Your task to perform on an android device: Open Android settings Image 0: 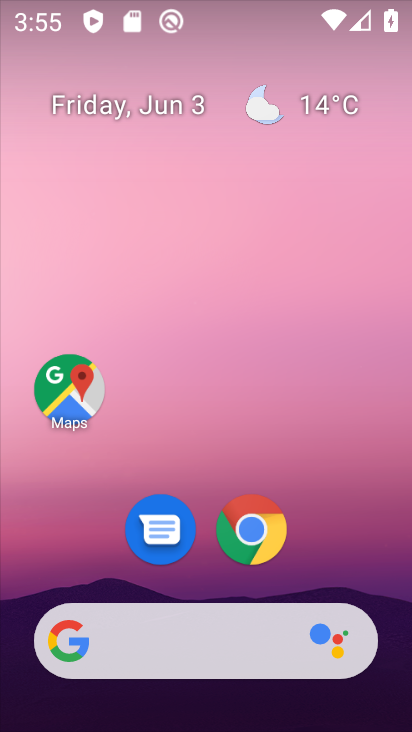
Step 0: press home button
Your task to perform on an android device: Open Android settings Image 1: 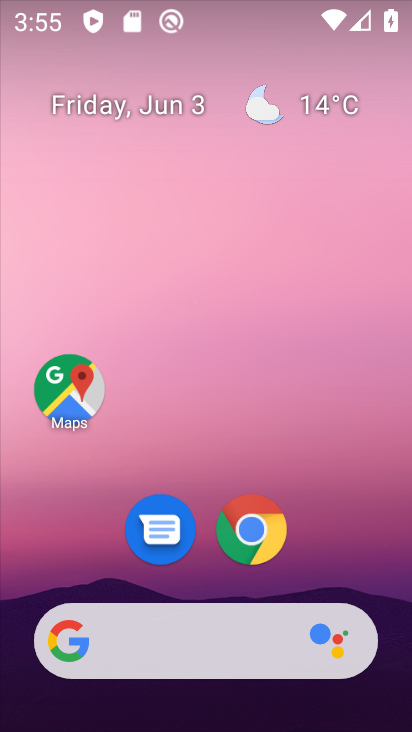
Step 1: click (205, 582)
Your task to perform on an android device: Open Android settings Image 2: 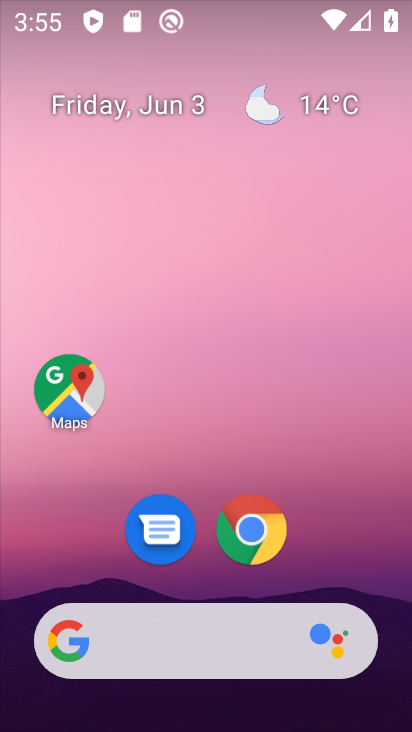
Step 2: click (265, 82)
Your task to perform on an android device: Open Android settings Image 3: 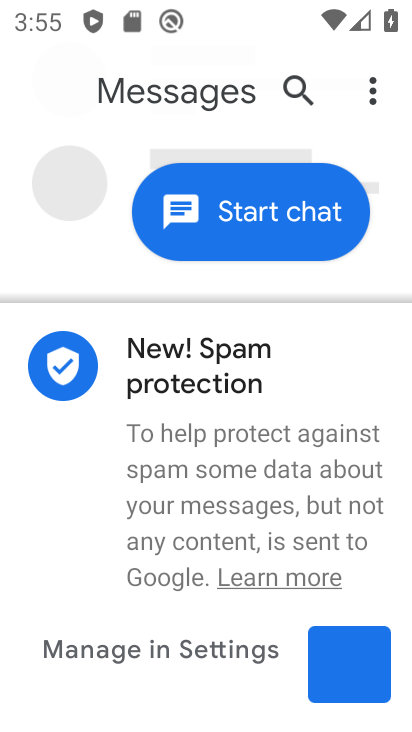
Step 3: press home button
Your task to perform on an android device: Open Android settings Image 4: 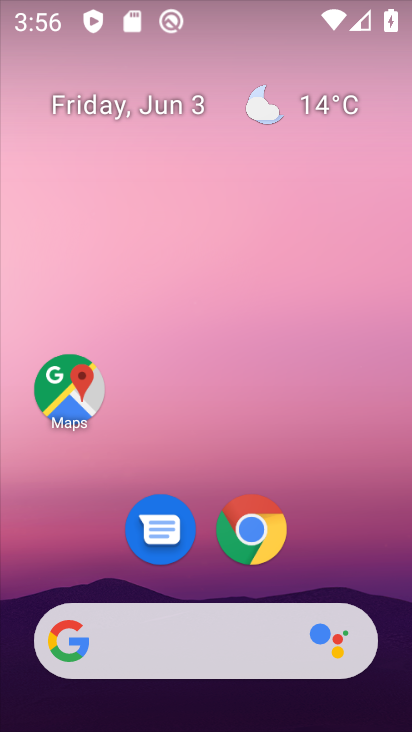
Step 4: drag from (203, 574) to (260, 121)
Your task to perform on an android device: Open Android settings Image 5: 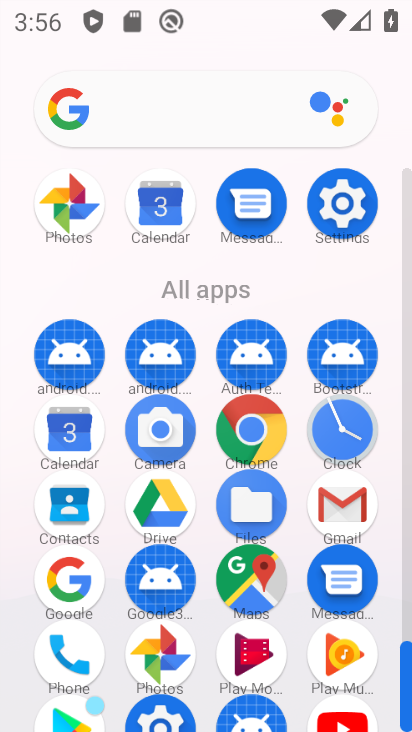
Step 5: click (337, 195)
Your task to perform on an android device: Open Android settings Image 6: 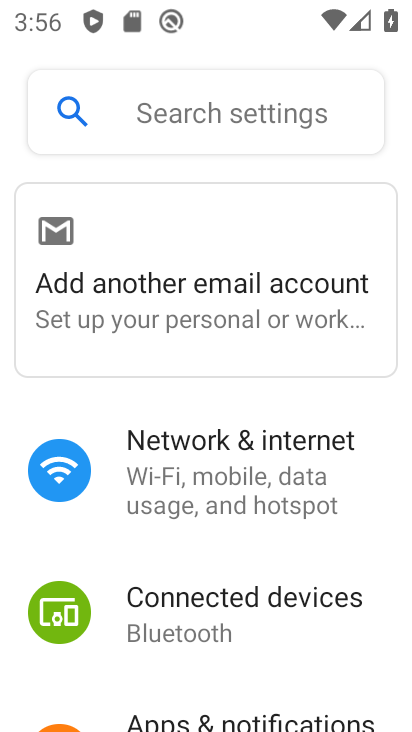
Step 6: drag from (260, 627) to (292, 130)
Your task to perform on an android device: Open Android settings Image 7: 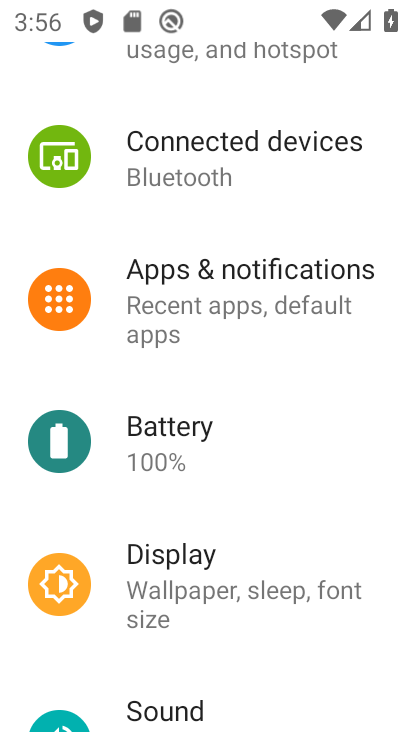
Step 7: drag from (243, 679) to (273, 106)
Your task to perform on an android device: Open Android settings Image 8: 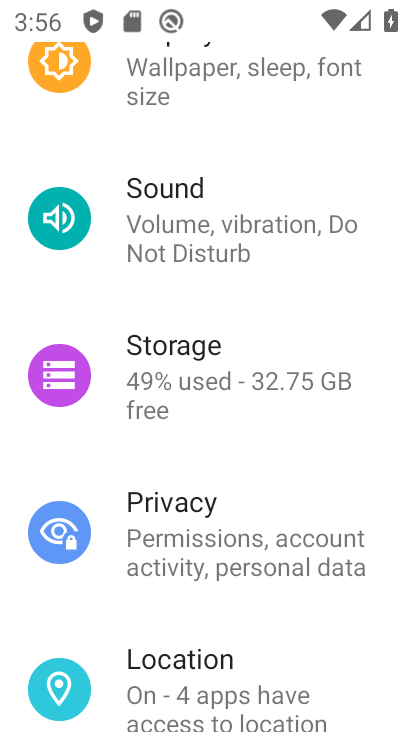
Step 8: drag from (255, 664) to (294, 146)
Your task to perform on an android device: Open Android settings Image 9: 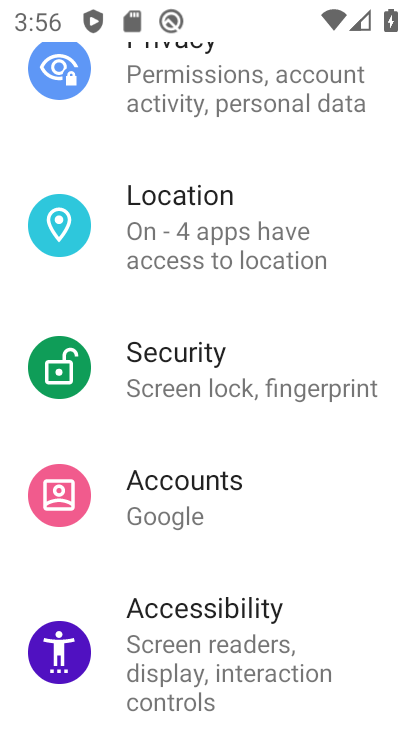
Step 9: drag from (291, 612) to (336, 96)
Your task to perform on an android device: Open Android settings Image 10: 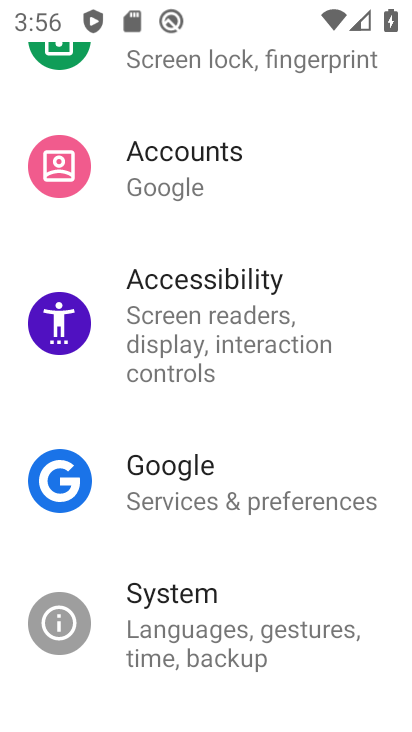
Step 10: drag from (258, 655) to (297, 122)
Your task to perform on an android device: Open Android settings Image 11: 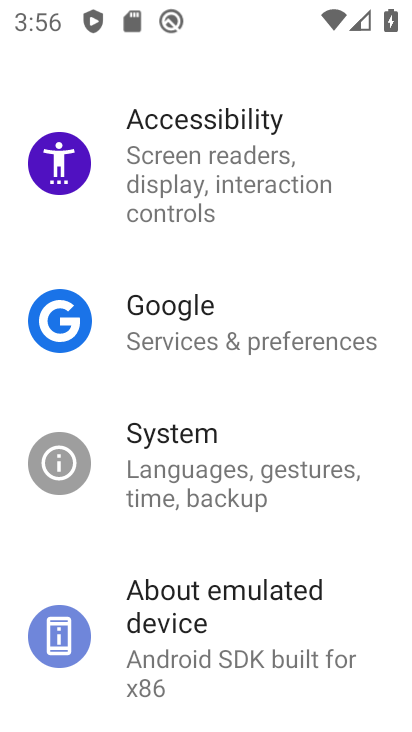
Step 11: click (232, 620)
Your task to perform on an android device: Open Android settings Image 12: 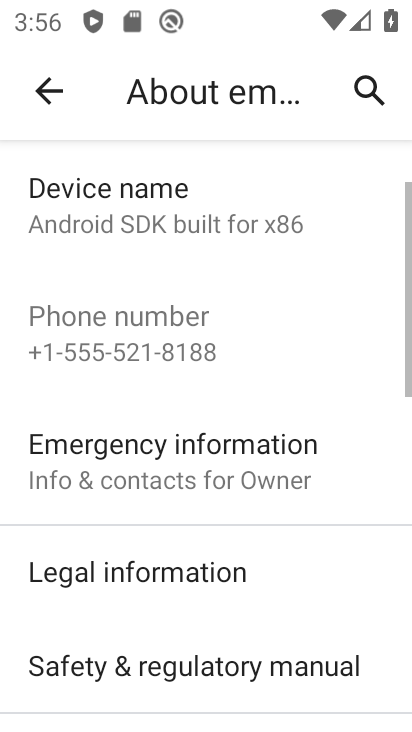
Step 12: drag from (283, 605) to (299, 182)
Your task to perform on an android device: Open Android settings Image 13: 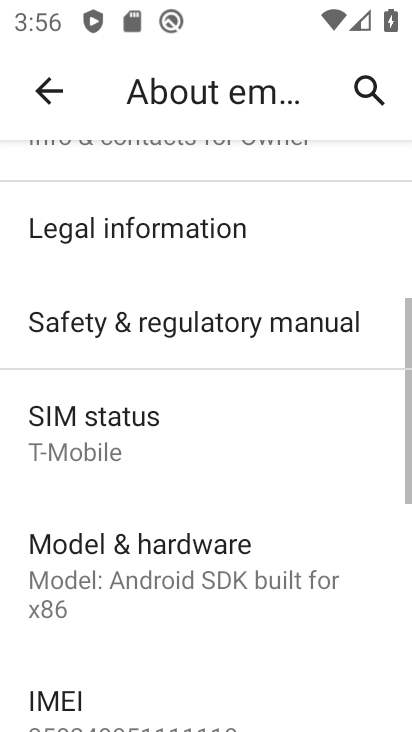
Step 13: drag from (214, 661) to (249, 197)
Your task to perform on an android device: Open Android settings Image 14: 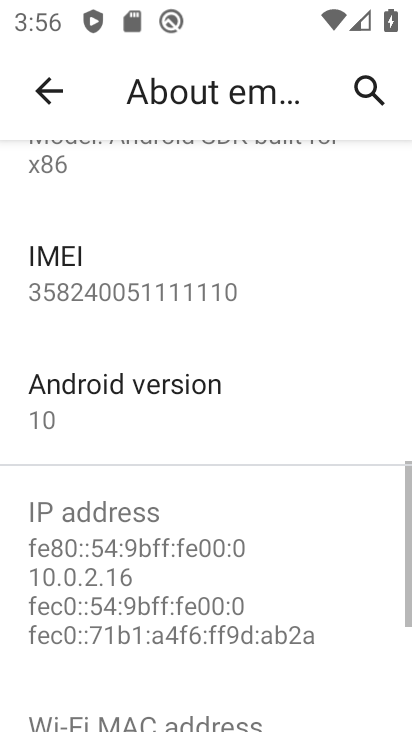
Step 14: click (154, 411)
Your task to perform on an android device: Open Android settings Image 15: 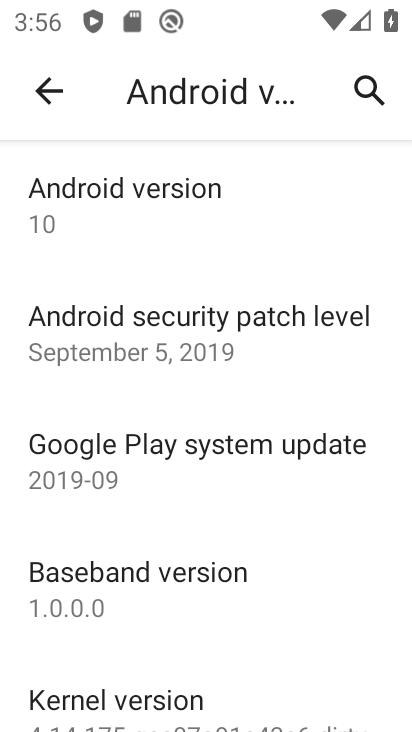
Step 15: task complete